Your task to perform on an android device: add a contact Image 0: 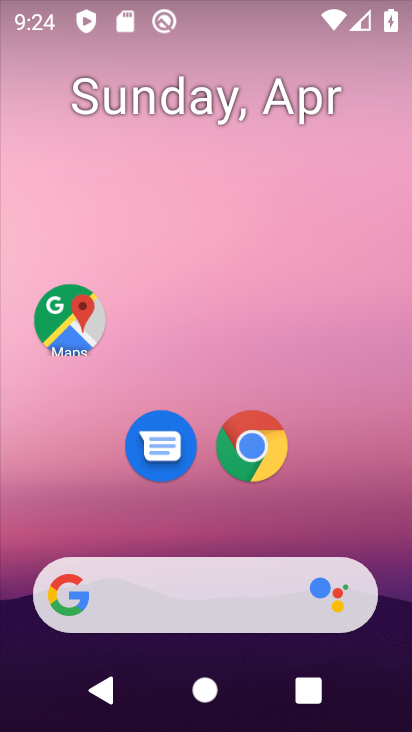
Step 0: click (166, 29)
Your task to perform on an android device: add a contact Image 1: 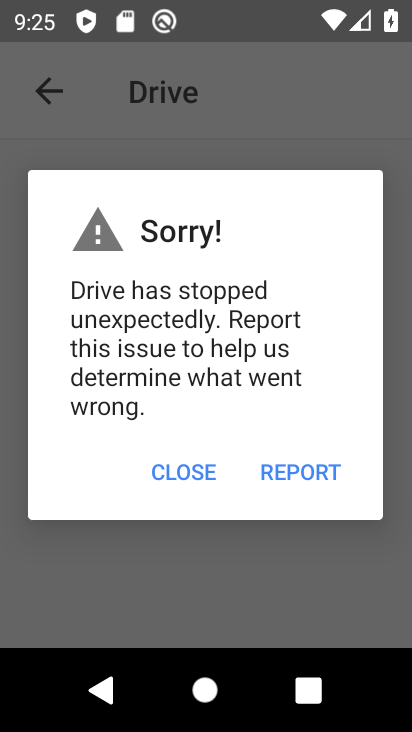
Step 1: press home button
Your task to perform on an android device: add a contact Image 2: 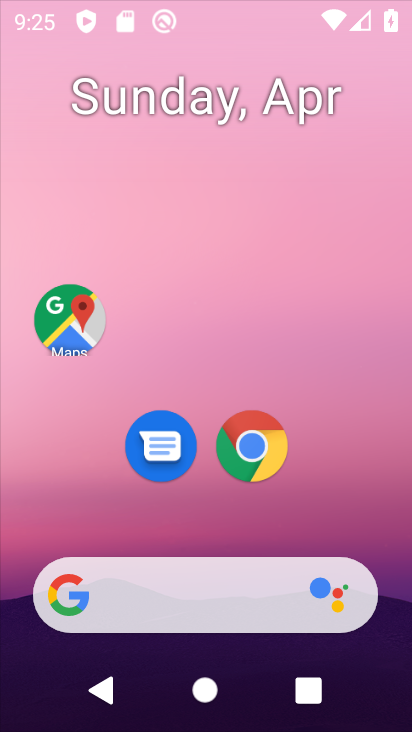
Step 2: drag from (234, 557) to (251, 91)
Your task to perform on an android device: add a contact Image 3: 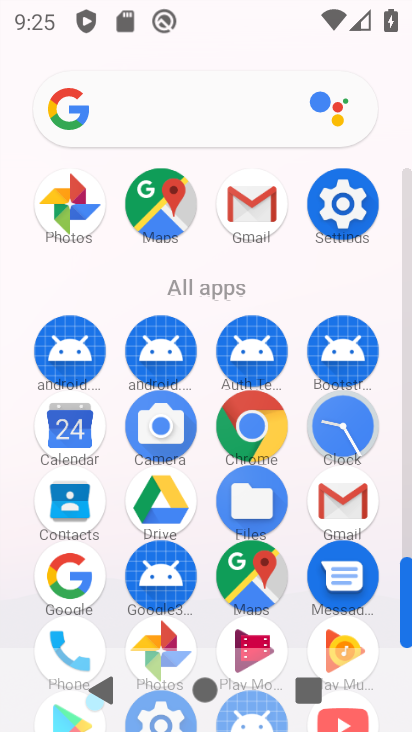
Step 3: drag from (199, 610) to (206, 368)
Your task to perform on an android device: add a contact Image 4: 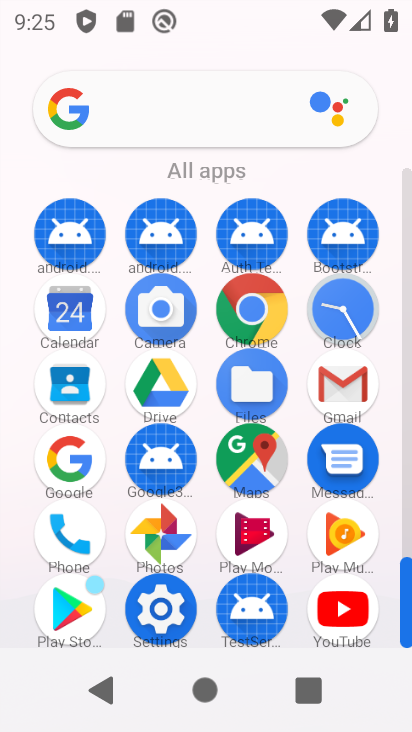
Step 4: click (76, 383)
Your task to perform on an android device: add a contact Image 5: 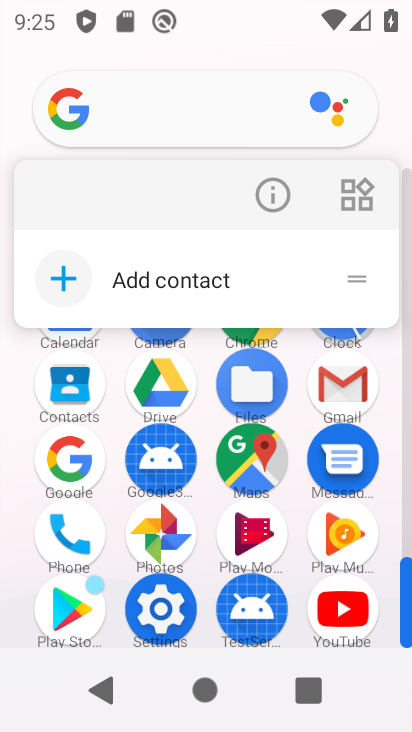
Step 5: click (273, 184)
Your task to perform on an android device: add a contact Image 6: 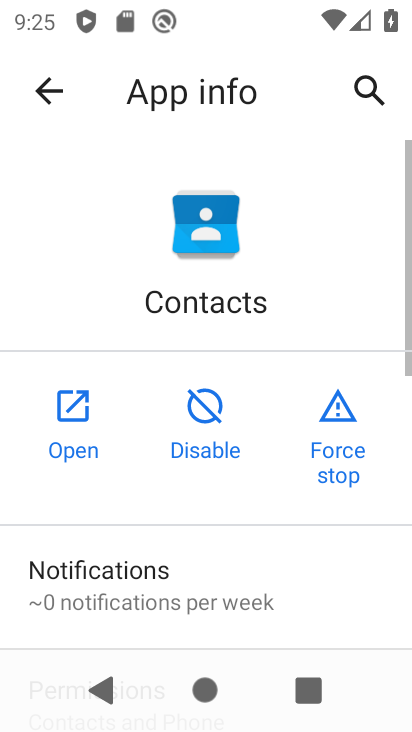
Step 6: click (69, 434)
Your task to perform on an android device: add a contact Image 7: 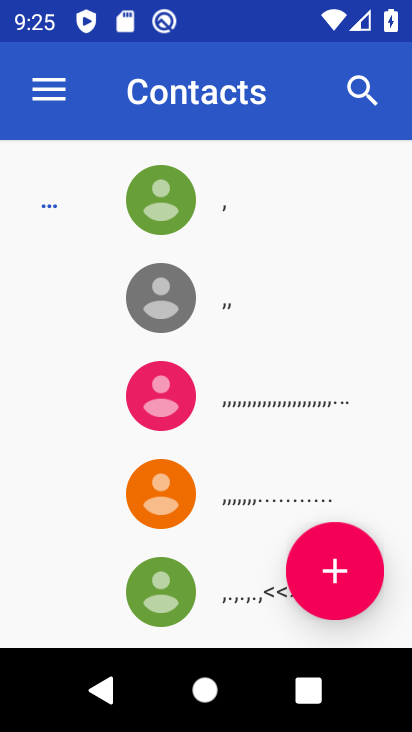
Step 7: click (50, 84)
Your task to perform on an android device: add a contact Image 8: 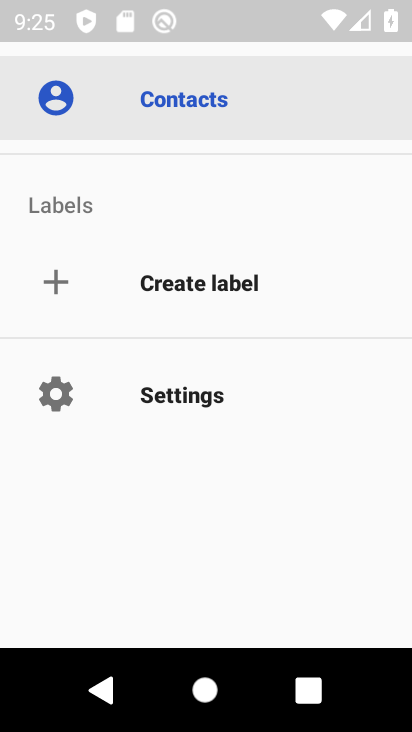
Step 8: press back button
Your task to perform on an android device: add a contact Image 9: 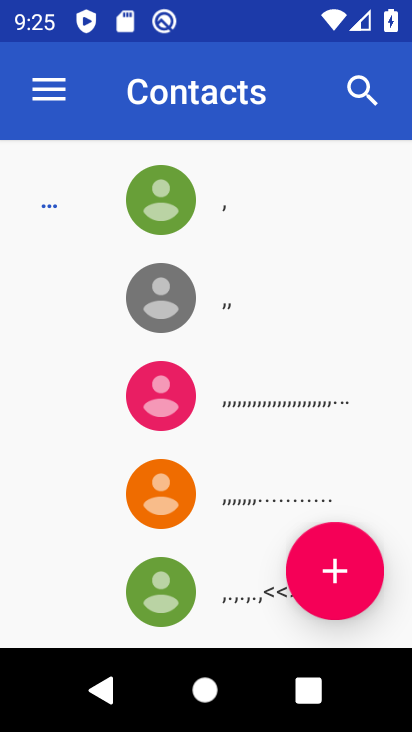
Step 9: click (343, 569)
Your task to perform on an android device: add a contact Image 10: 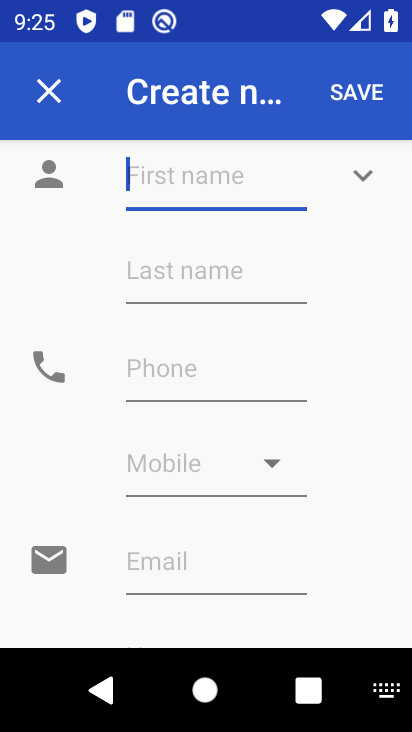
Step 10: type "njkl"
Your task to perform on an android device: add a contact Image 11: 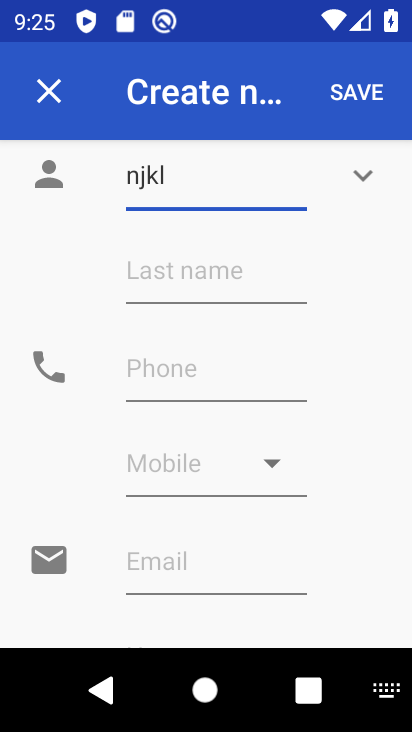
Step 11: click (360, 97)
Your task to perform on an android device: add a contact Image 12: 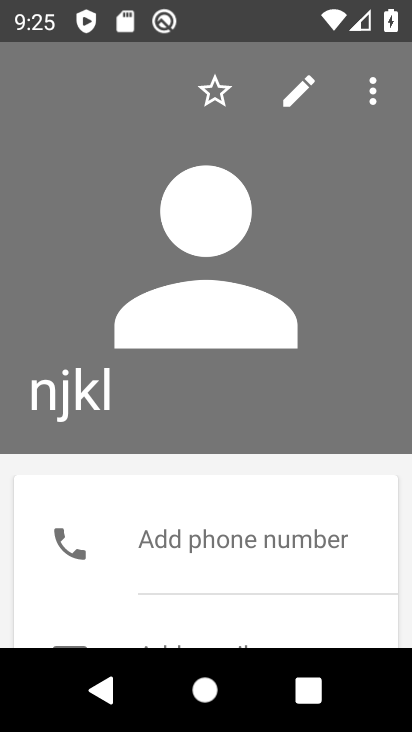
Step 12: task complete